Your task to perform on an android device: find photos in the google photos app Image 0: 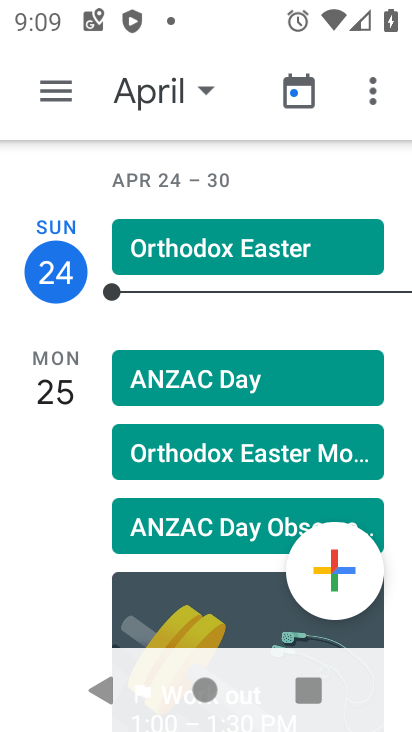
Step 0: press home button
Your task to perform on an android device: find photos in the google photos app Image 1: 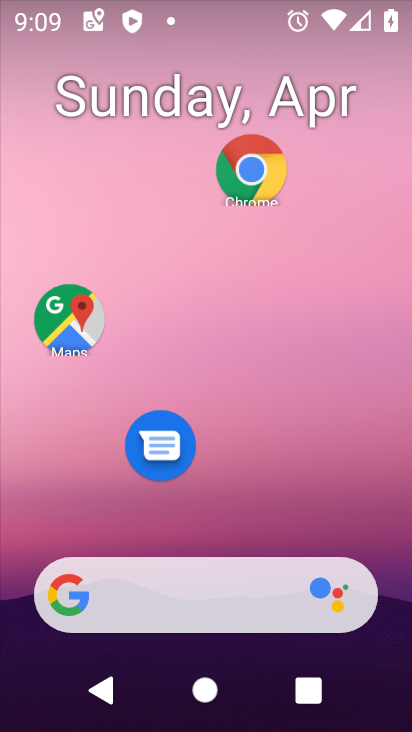
Step 1: drag from (273, 458) to (245, 60)
Your task to perform on an android device: find photos in the google photos app Image 2: 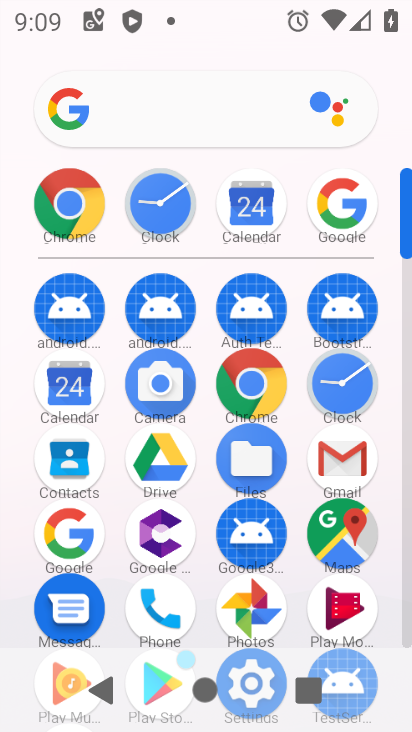
Step 2: click (251, 611)
Your task to perform on an android device: find photos in the google photos app Image 3: 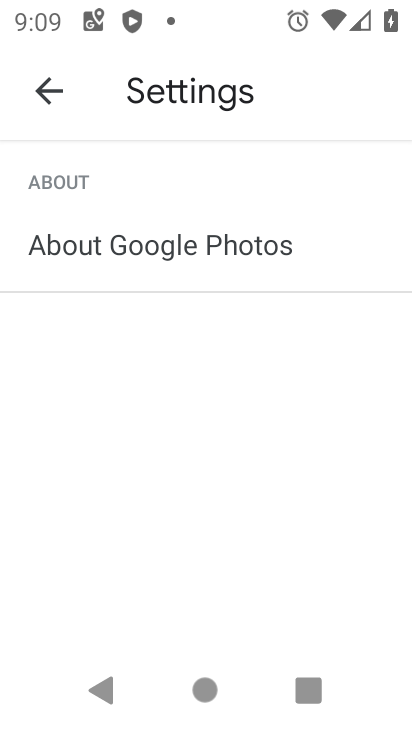
Step 3: press back button
Your task to perform on an android device: find photos in the google photos app Image 4: 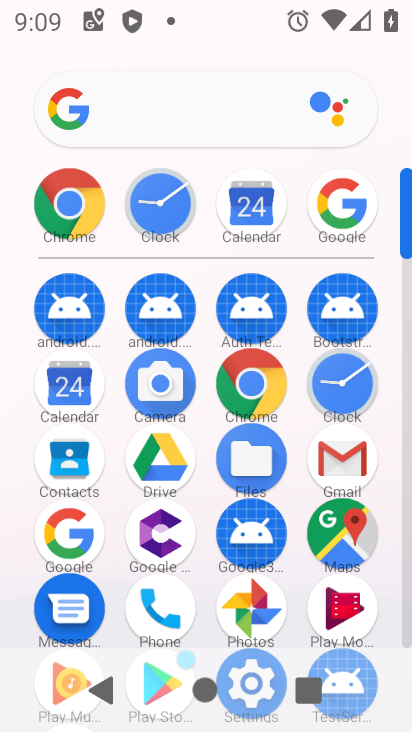
Step 4: click (259, 609)
Your task to perform on an android device: find photos in the google photos app Image 5: 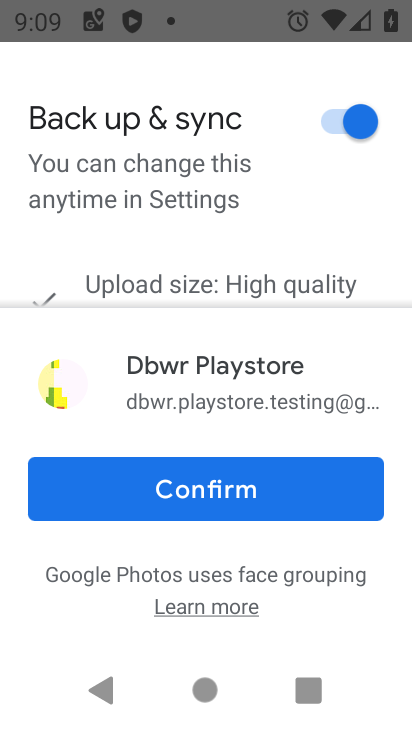
Step 5: drag from (176, 500) to (130, 492)
Your task to perform on an android device: find photos in the google photos app Image 6: 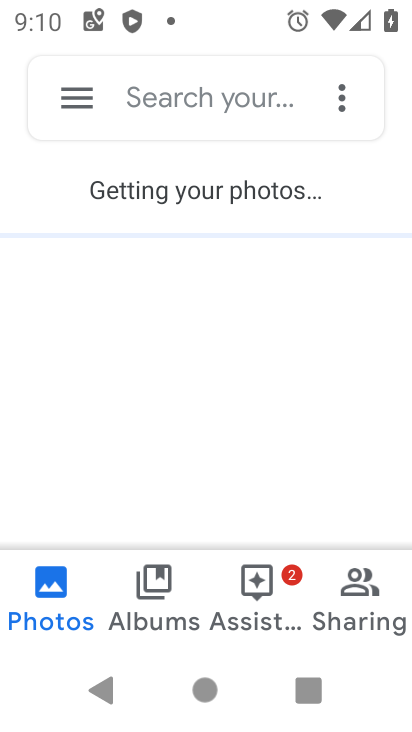
Step 6: click (203, 79)
Your task to perform on an android device: find photos in the google photos app Image 7: 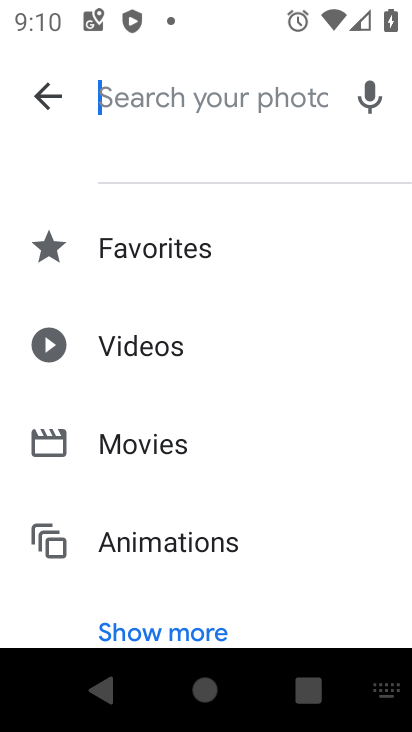
Step 7: click (149, 257)
Your task to perform on an android device: find photos in the google photos app Image 8: 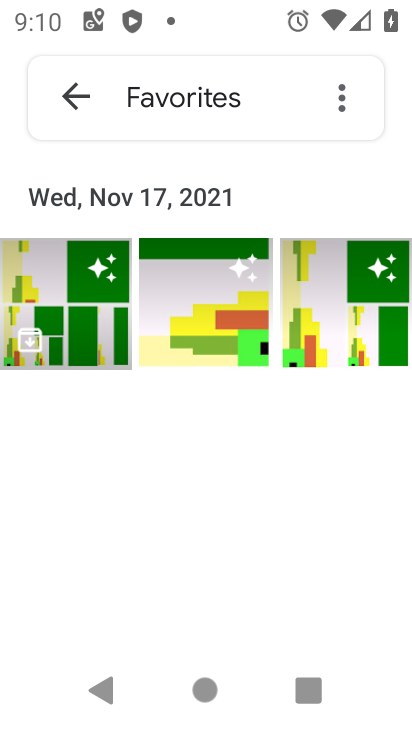
Step 8: task complete